Your task to perform on an android device: toggle wifi Image 0: 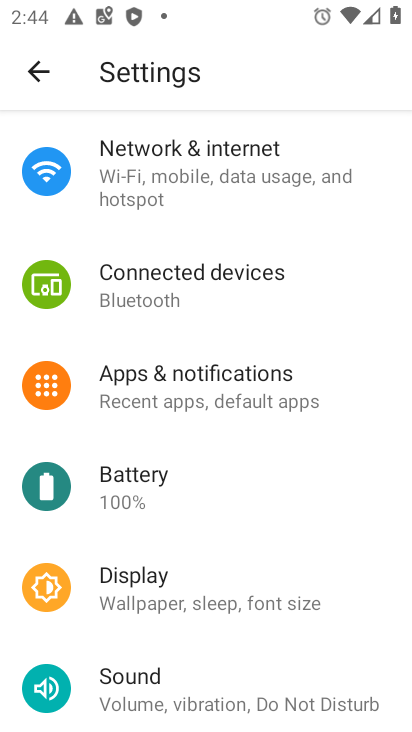
Step 0: click (252, 186)
Your task to perform on an android device: toggle wifi Image 1: 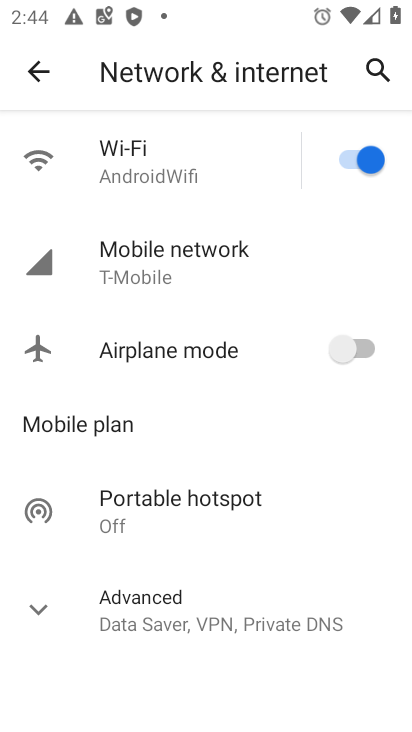
Step 1: click (349, 159)
Your task to perform on an android device: toggle wifi Image 2: 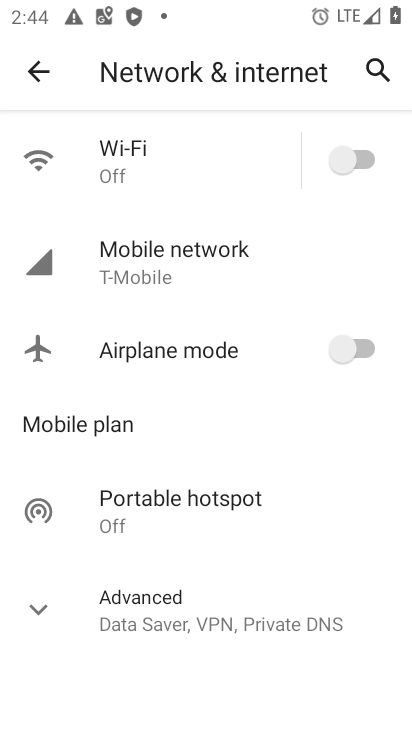
Step 2: task complete